Your task to perform on an android device: change notification settings in the gmail app Image 0: 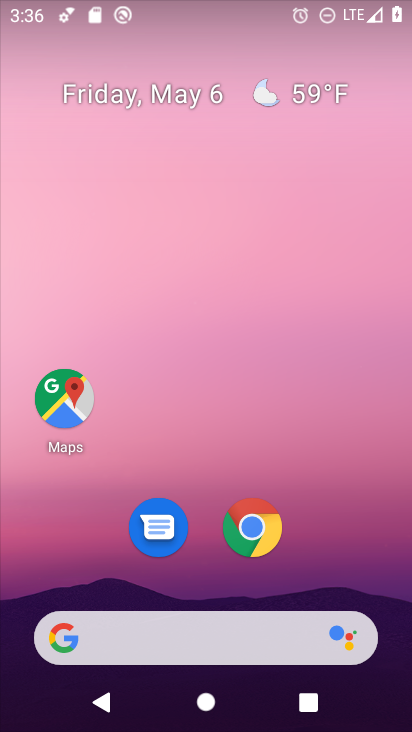
Step 0: click (253, 532)
Your task to perform on an android device: change notification settings in the gmail app Image 1: 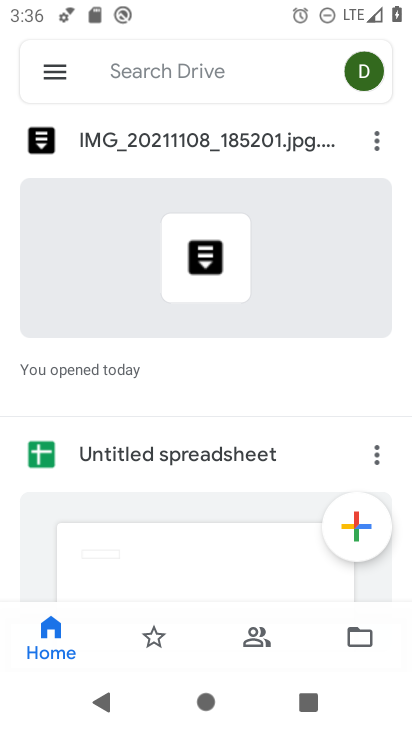
Step 1: press home button
Your task to perform on an android device: change notification settings in the gmail app Image 2: 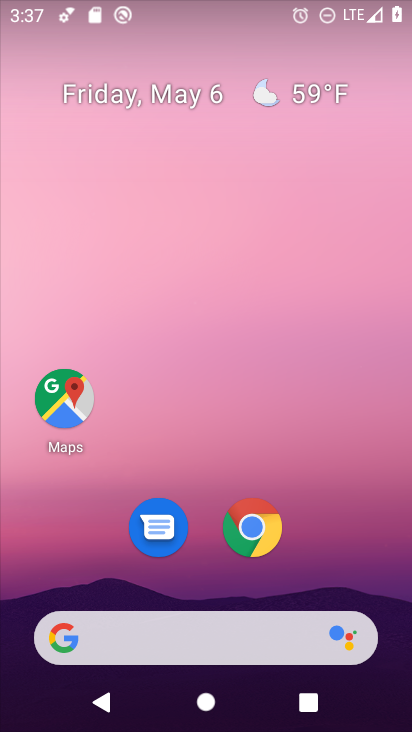
Step 2: drag from (367, 532) to (279, 88)
Your task to perform on an android device: change notification settings in the gmail app Image 3: 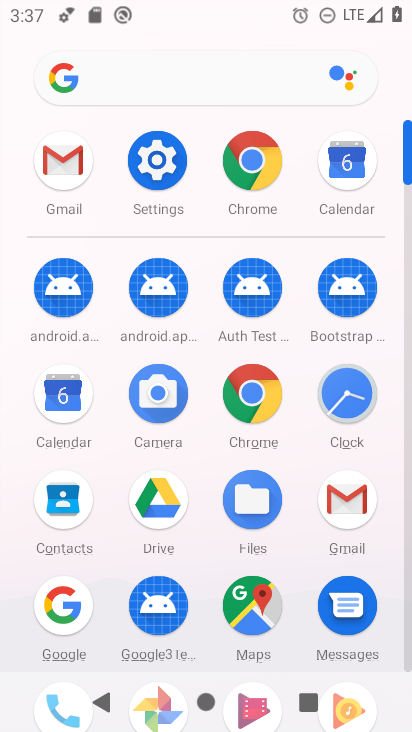
Step 3: click (353, 512)
Your task to perform on an android device: change notification settings in the gmail app Image 4: 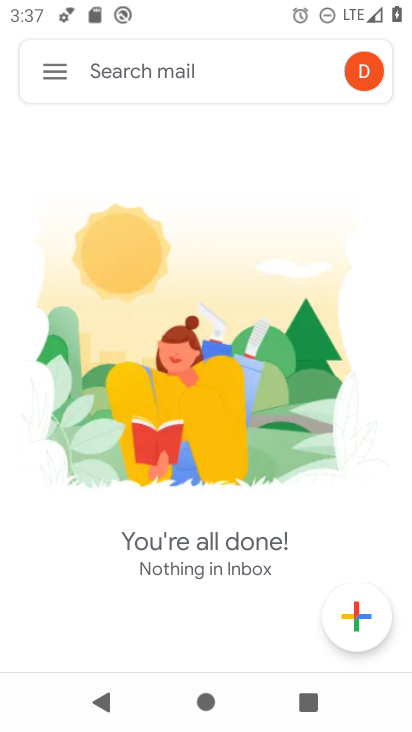
Step 4: click (44, 78)
Your task to perform on an android device: change notification settings in the gmail app Image 5: 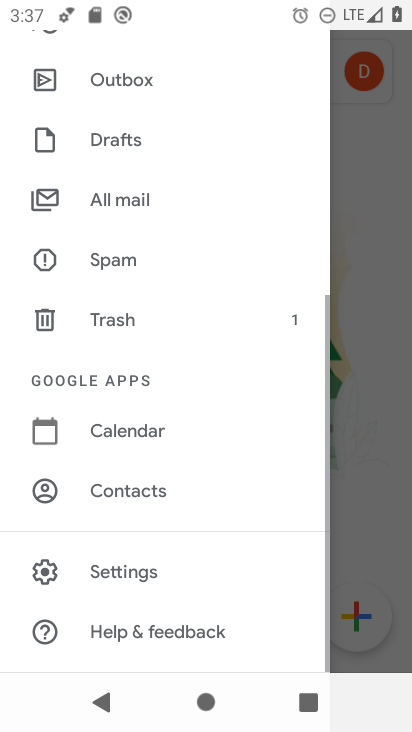
Step 5: drag from (161, 518) to (212, 92)
Your task to perform on an android device: change notification settings in the gmail app Image 6: 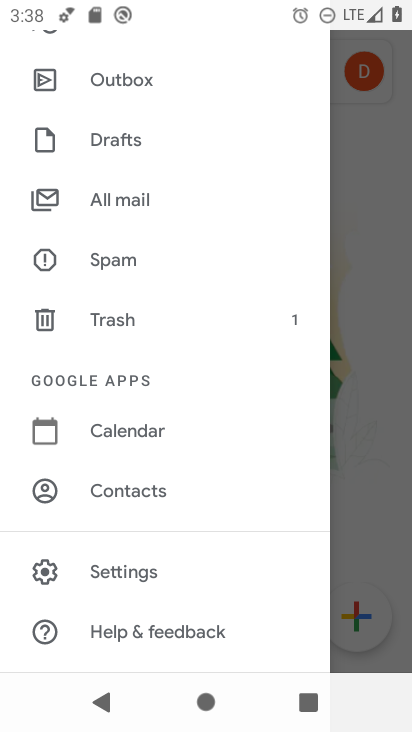
Step 6: click (132, 572)
Your task to perform on an android device: change notification settings in the gmail app Image 7: 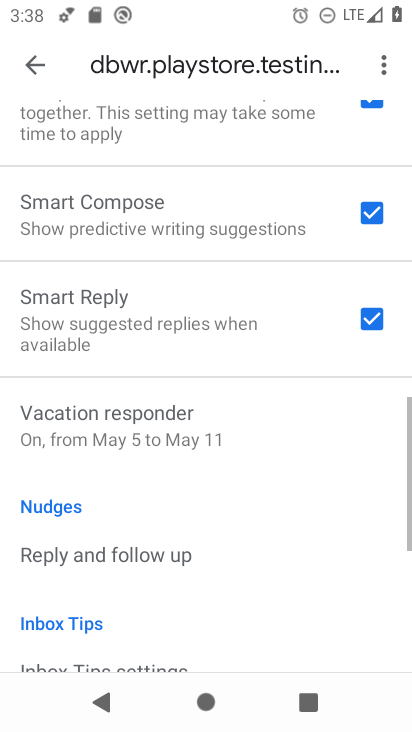
Step 7: drag from (168, 525) to (226, 130)
Your task to perform on an android device: change notification settings in the gmail app Image 8: 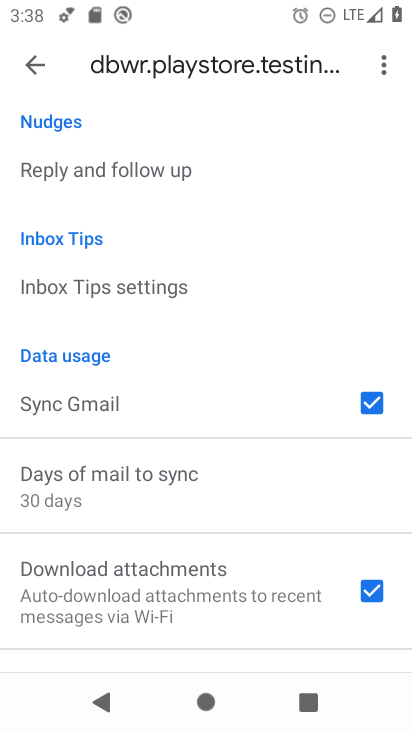
Step 8: drag from (162, 198) to (188, 627)
Your task to perform on an android device: change notification settings in the gmail app Image 9: 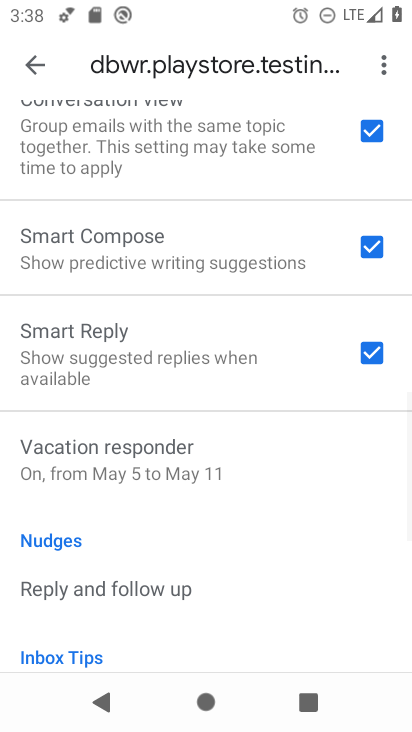
Step 9: drag from (174, 226) to (205, 561)
Your task to perform on an android device: change notification settings in the gmail app Image 10: 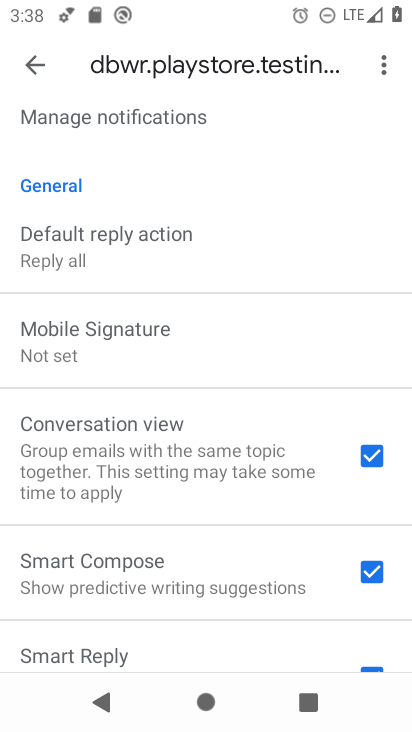
Step 10: drag from (182, 249) to (204, 473)
Your task to perform on an android device: change notification settings in the gmail app Image 11: 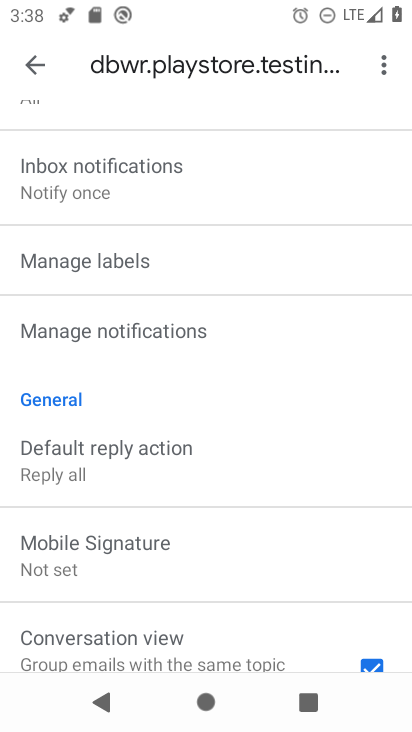
Step 11: click (128, 321)
Your task to perform on an android device: change notification settings in the gmail app Image 12: 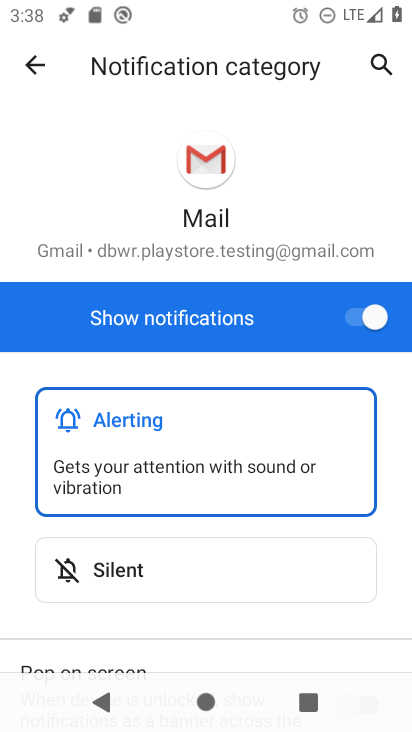
Step 12: click (341, 312)
Your task to perform on an android device: change notification settings in the gmail app Image 13: 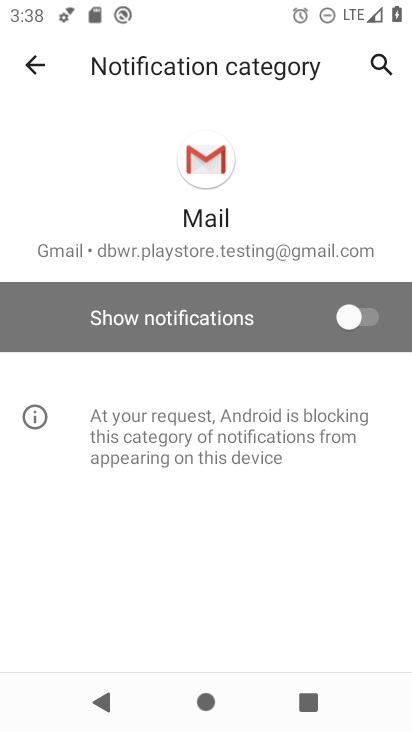
Step 13: task complete